Your task to perform on an android device: Open the calendar app, open the side menu, and click the "Day" option Image 0: 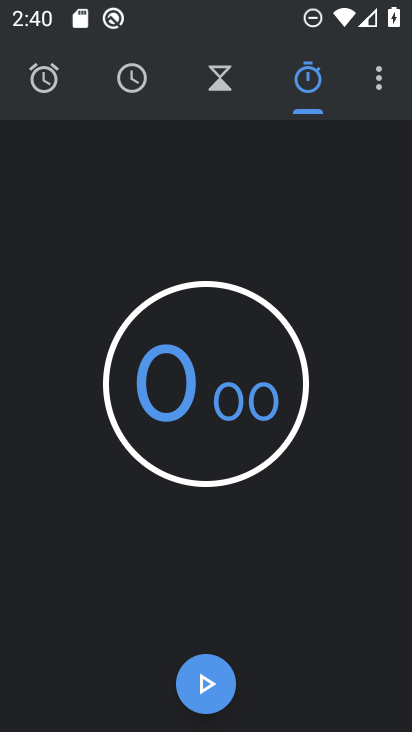
Step 0: press home button
Your task to perform on an android device: Open the calendar app, open the side menu, and click the "Day" option Image 1: 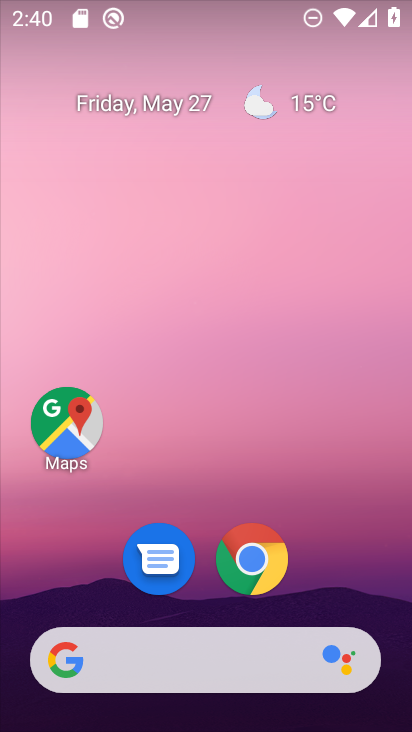
Step 1: drag from (121, 706) to (182, 82)
Your task to perform on an android device: Open the calendar app, open the side menu, and click the "Day" option Image 2: 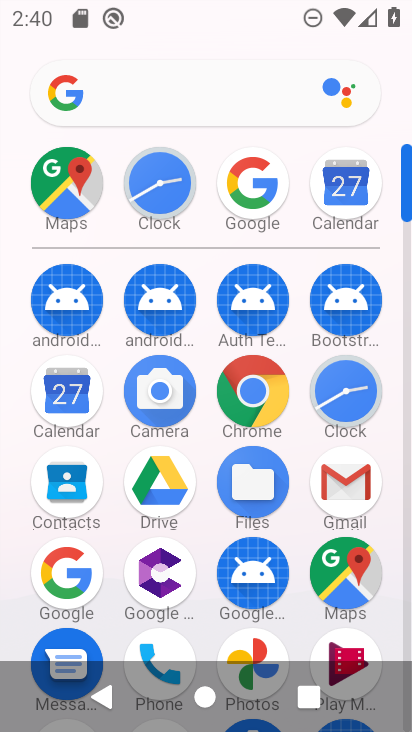
Step 2: click (80, 396)
Your task to perform on an android device: Open the calendar app, open the side menu, and click the "Day" option Image 3: 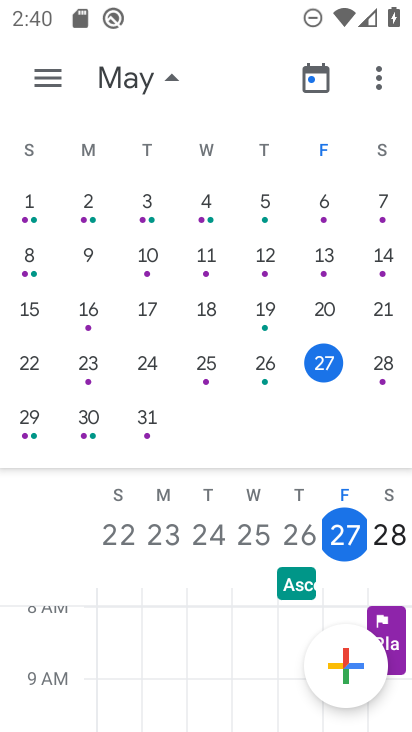
Step 3: click (46, 71)
Your task to perform on an android device: Open the calendar app, open the side menu, and click the "Day" option Image 4: 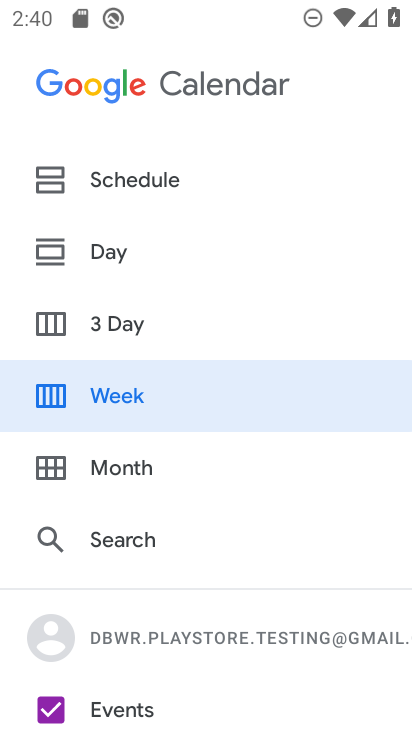
Step 4: click (129, 258)
Your task to perform on an android device: Open the calendar app, open the side menu, and click the "Day" option Image 5: 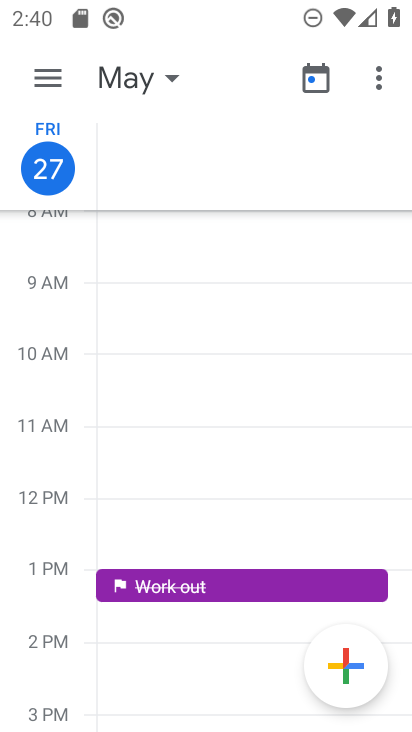
Step 5: task complete